Your task to perform on an android device: Go to calendar. Show me events next week Image 0: 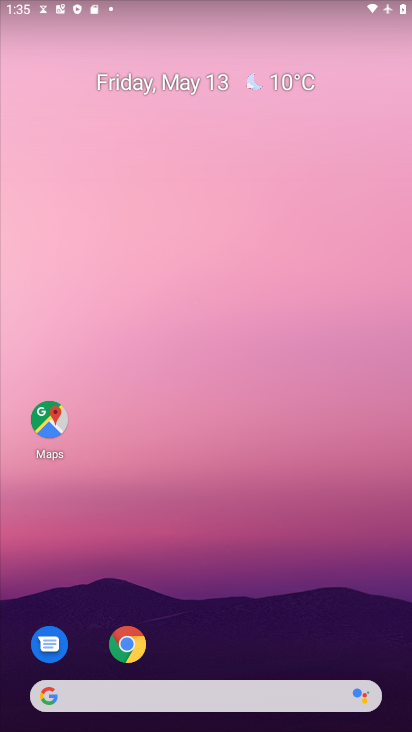
Step 0: drag from (217, 726) to (223, 192)
Your task to perform on an android device: Go to calendar. Show me events next week Image 1: 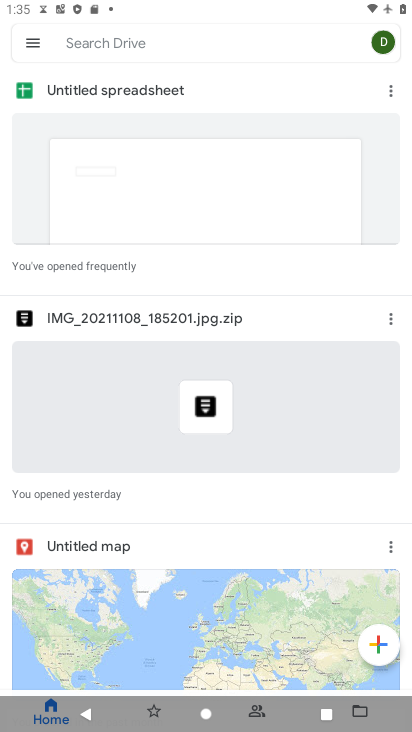
Step 1: press home button
Your task to perform on an android device: Go to calendar. Show me events next week Image 2: 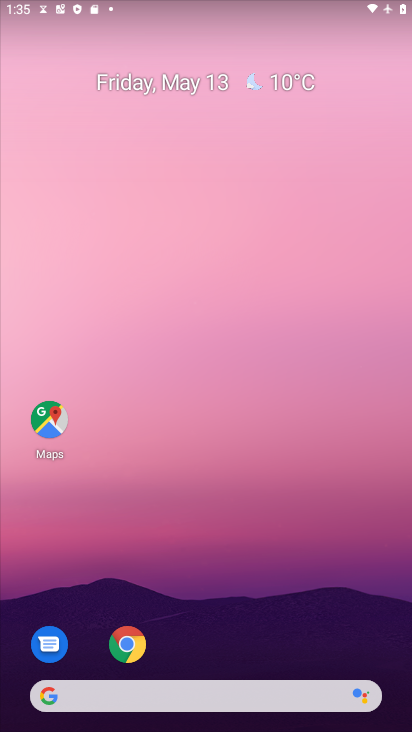
Step 2: drag from (220, 725) to (222, 193)
Your task to perform on an android device: Go to calendar. Show me events next week Image 3: 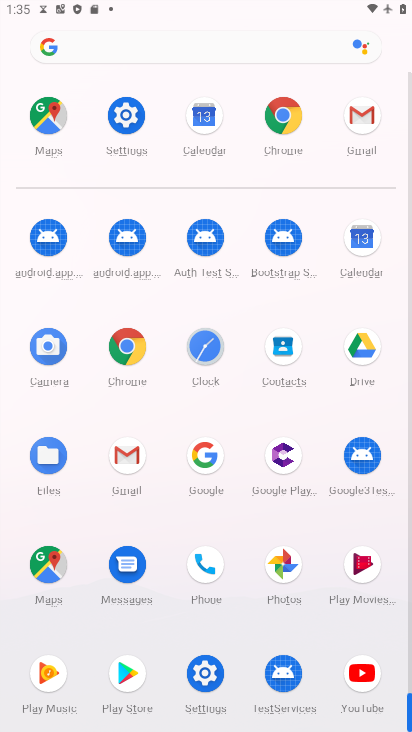
Step 3: click (361, 235)
Your task to perform on an android device: Go to calendar. Show me events next week Image 4: 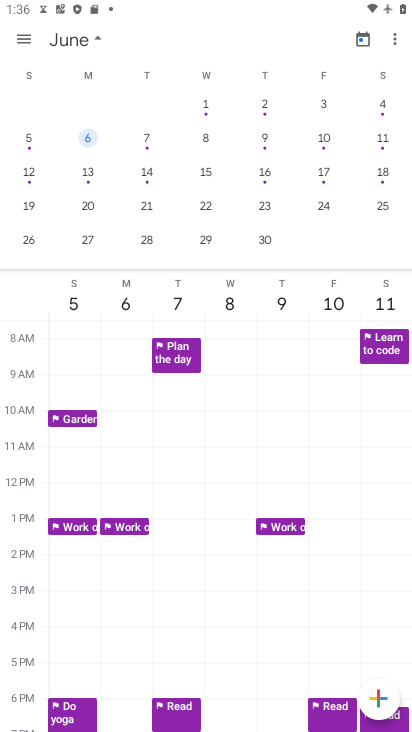
Step 4: drag from (57, 197) to (371, 169)
Your task to perform on an android device: Go to calendar. Show me events next week Image 5: 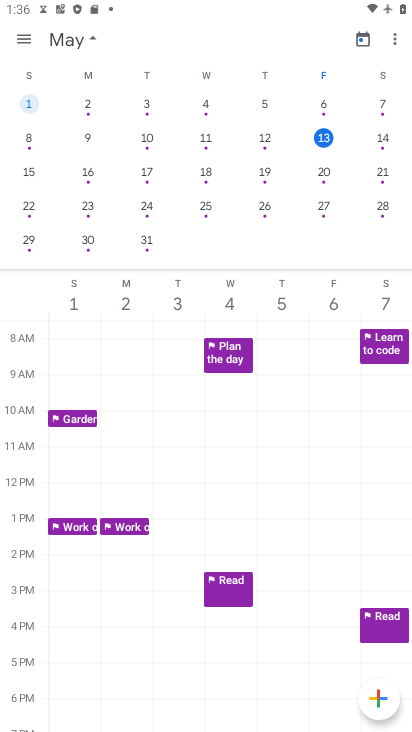
Step 5: click (88, 174)
Your task to perform on an android device: Go to calendar. Show me events next week Image 6: 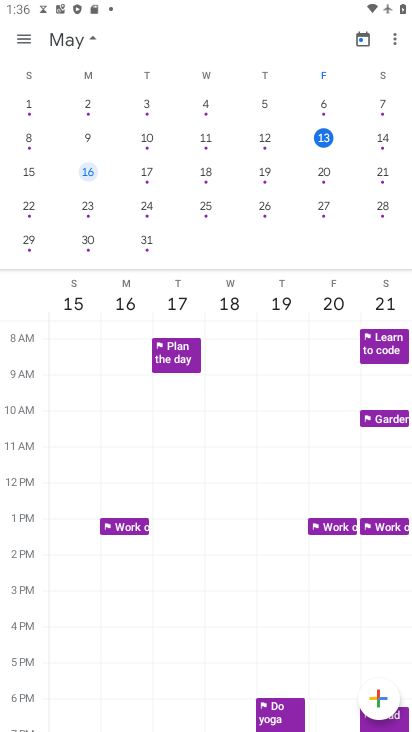
Step 6: task complete